Your task to perform on an android device: check the backup settings in the google photos Image 0: 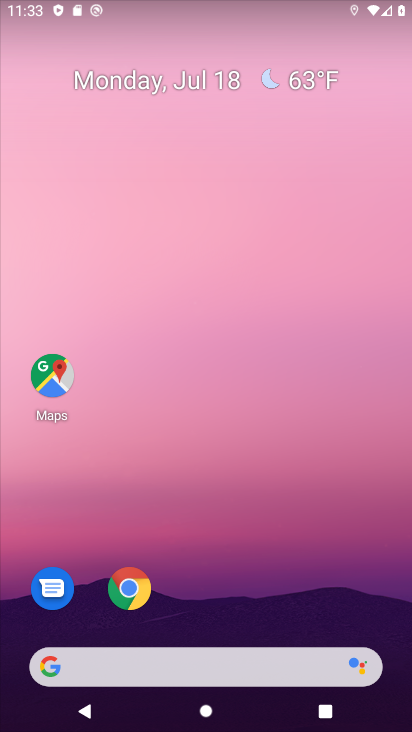
Step 0: drag from (279, 616) to (390, 29)
Your task to perform on an android device: check the backup settings in the google photos Image 1: 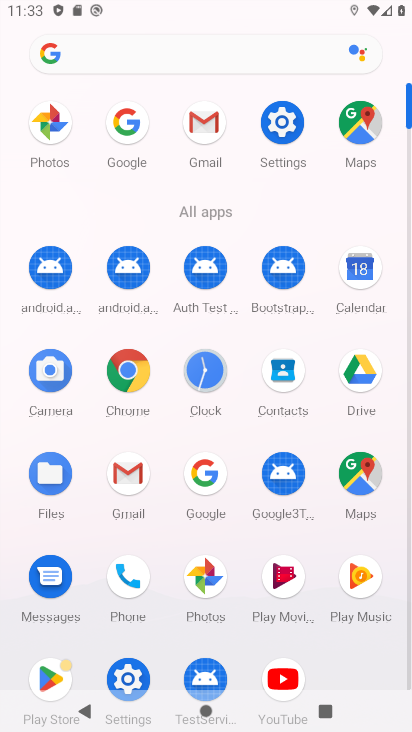
Step 1: click (200, 574)
Your task to perform on an android device: check the backup settings in the google photos Image 2: 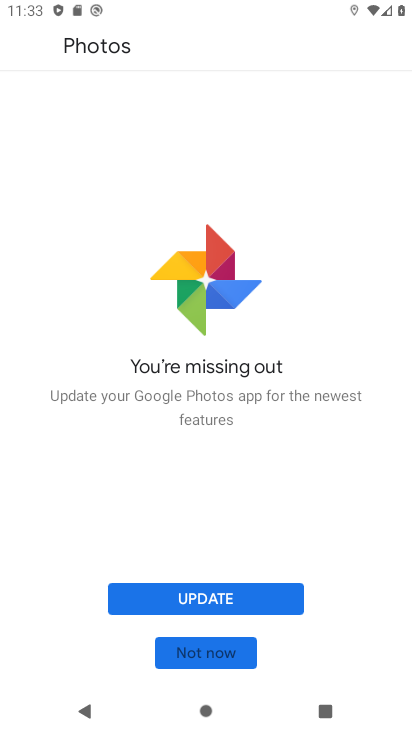
Step 2: click (218, 600)
Your task to perform on an android device: check the backup settings in the google photos Image 3: 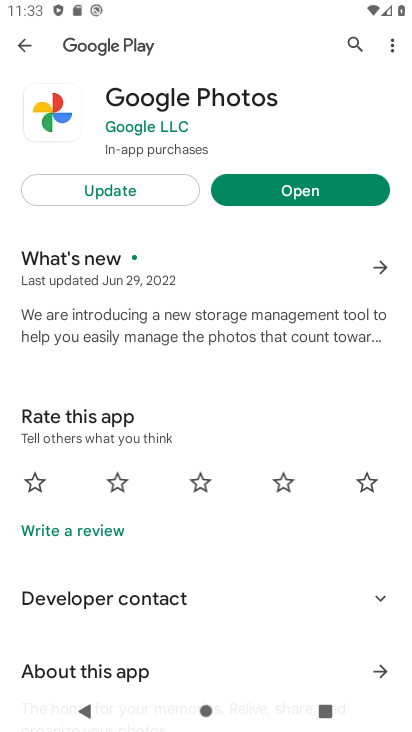
Step 3: click (93, 187)
Your task to perform on an android device: check the backup settings in the google photos Image 4: 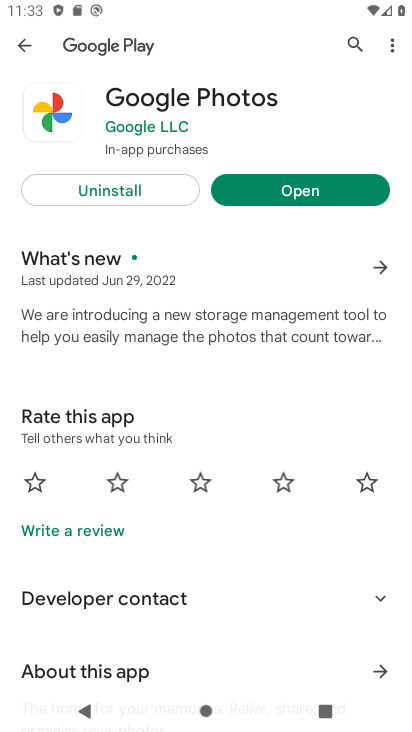
Step 4: click (322, 193)
Your task to perform on an android device: check the backup settings in the google photos Image 5: 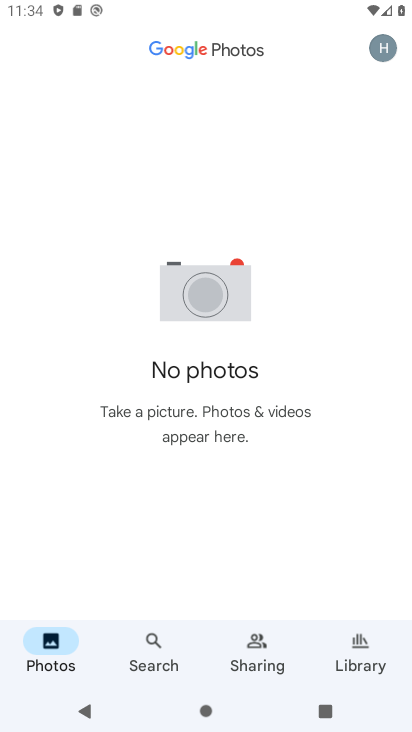
Step 5: click (380, 46)
Your task to perform on an android device: check the backup settings in the google photos Image 6: 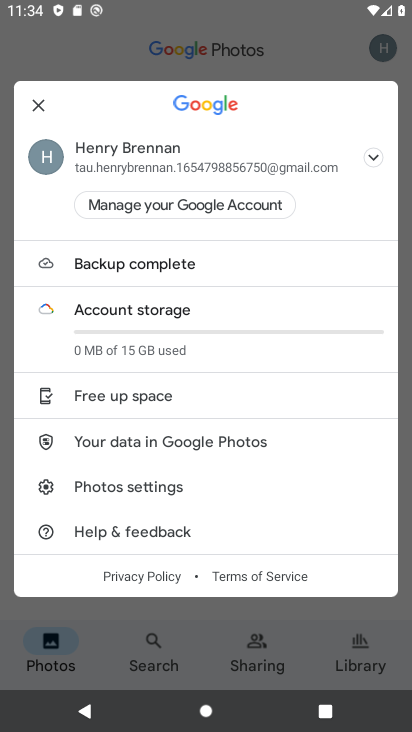
Step 6: click (140, 489)
Your task to perform on an android device: check the backup settings in the google photos Image 7: 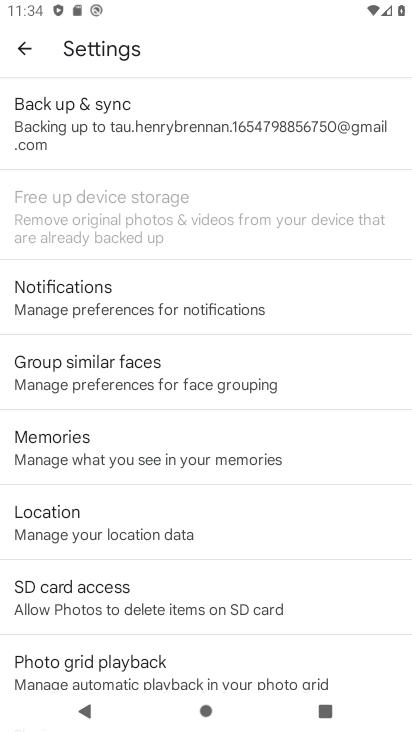
Step 7: click (128, 131)
Your task to perform on an android device: check the backup settings in the google photos Image 8: 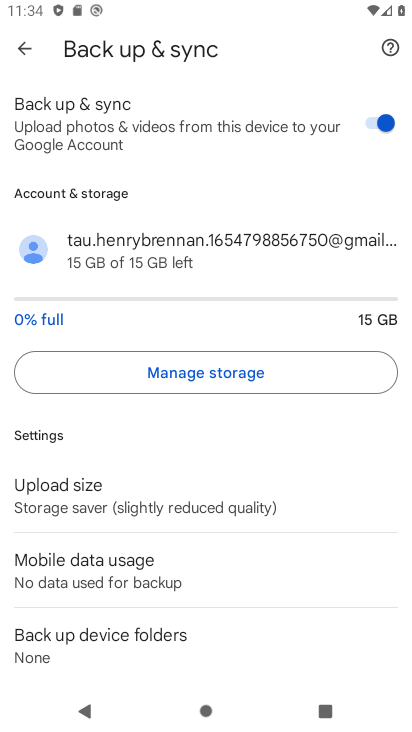
Step 8: task complete